Your task to perform on an android device: turn off javascript in the chrome app Image 0: 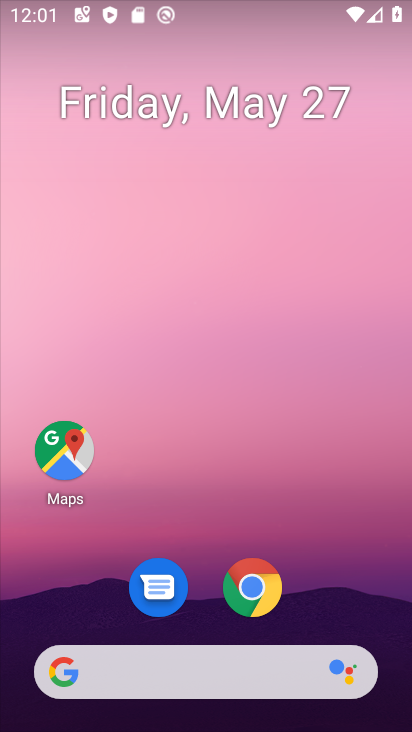
Step 0: click (249, 595)
Your task to perform on an android device: turn off javascript in the chrome app Image 1: 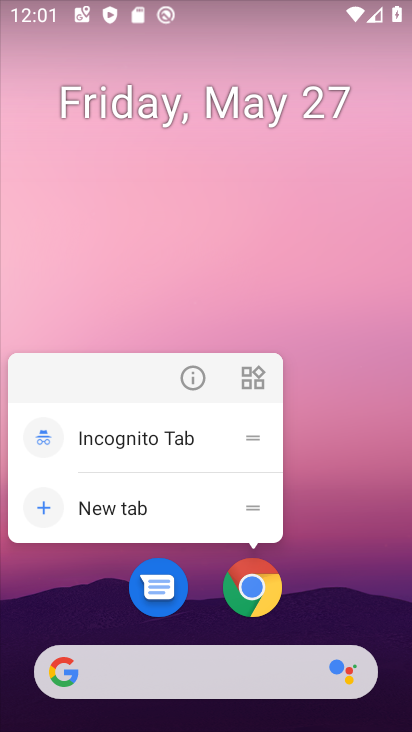
Step 1: click (253, 584)
Your task to perform on an android device: turn off javascript in the chrome app Image 2: 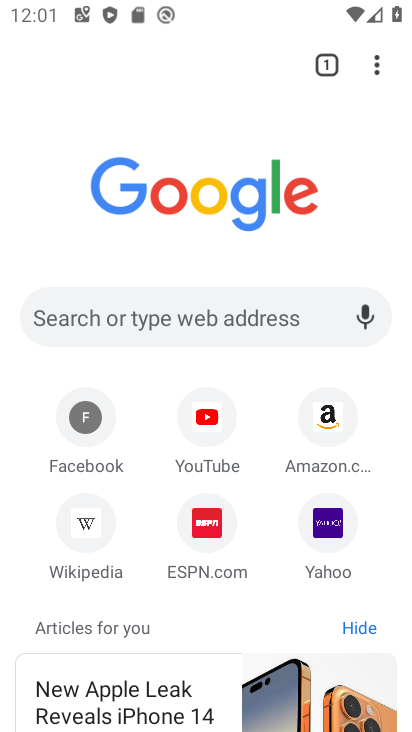
Step 2: click (375, 64)
Your task to perform on an android device: turn off javascript in the chrome app Image 3: 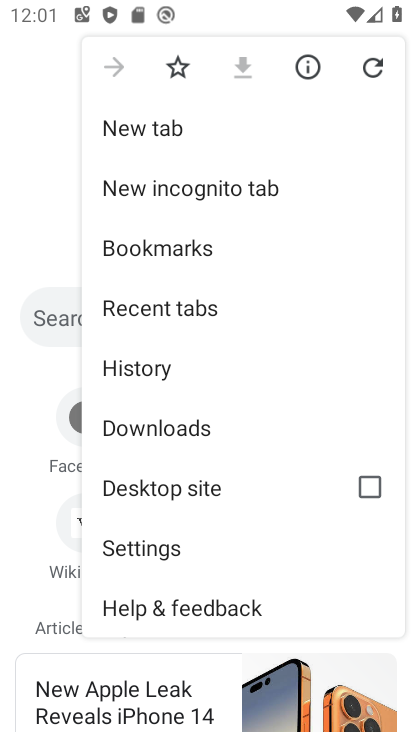
Step 3: click (170, 551)
Your task to perform on an android device: turn off javascript in the chrome app Image 4: 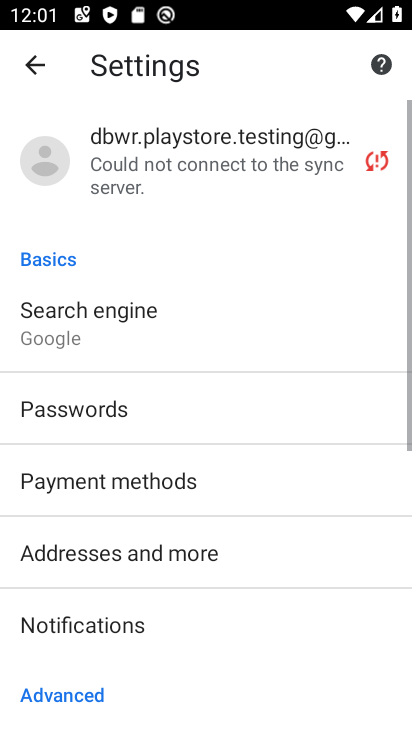
Step 4: drag from (155, 655) to (164, 252)
Your task to perform on an android device: turn off javascript in the chrome app Image 5: 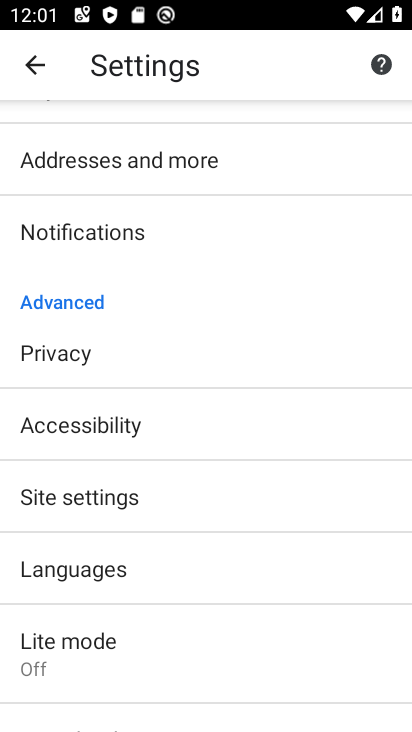
Step 5: click (112, 495)
Your task to perform on an android device: turn off javascript in the chrome app Image 6: 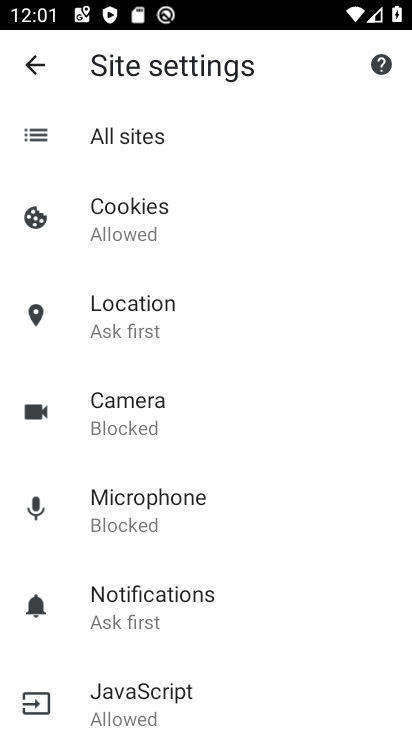
Step 6: click (177, 706)
Your task to perform on an android device: turn off javascript in the chrome app Image 7: 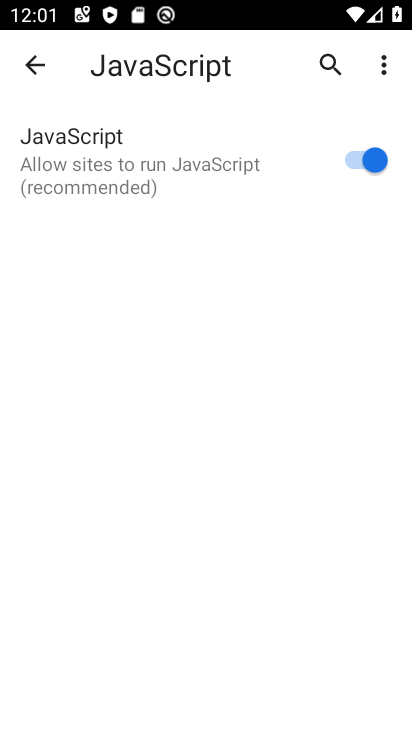
Step 7: click (368, 160)
Your task to perform on an android device: turn off javascript in the chrome app Image 8: 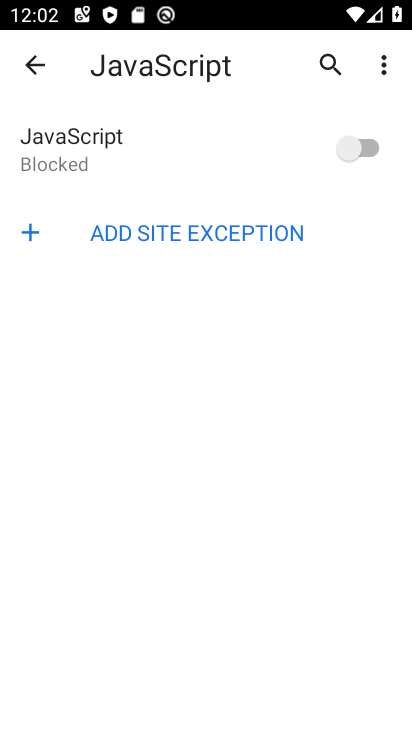
Step 8: task complete